Your task to perform on an android device: check the backup settings in the google photos Image 0: 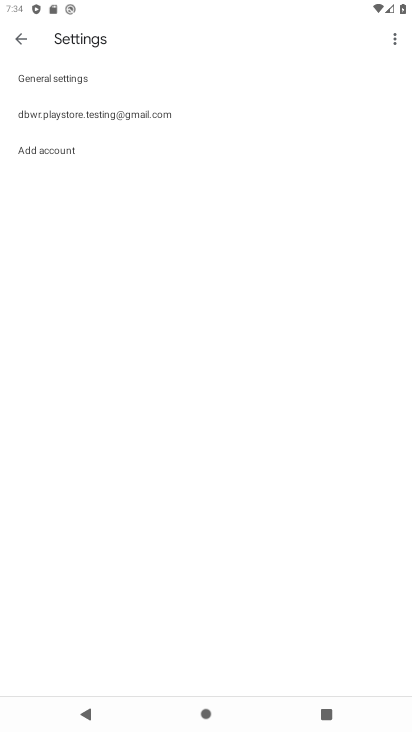
Step 0: press home button
Your task to perform on an android device: check the backup settings in the google photos Image 1: 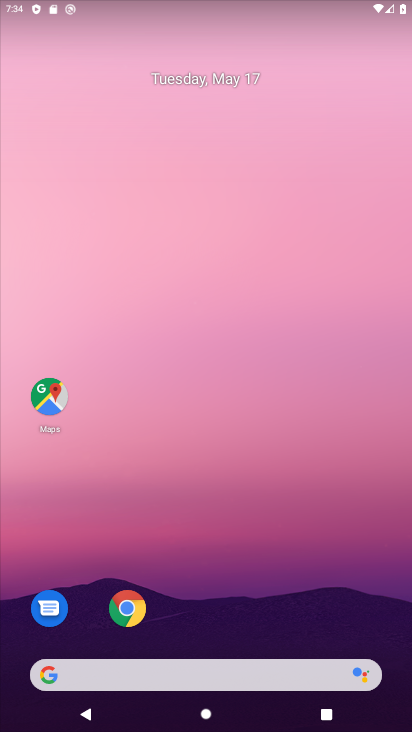
Step 1: drag from (203, 604) to (337, 96)
Your task to perform on an android device: check the backup settings in the google photos Image 2: 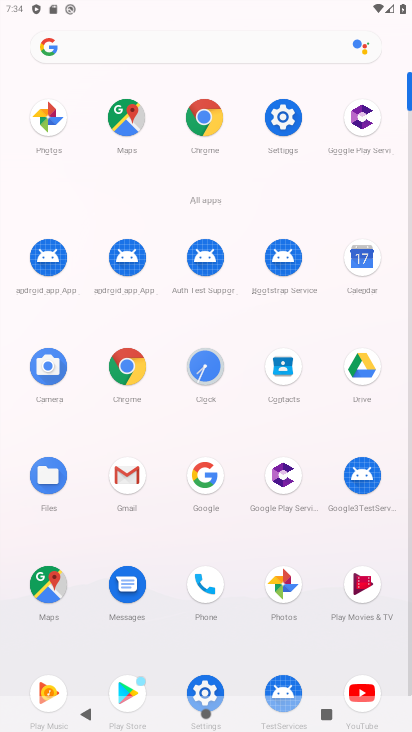
Step 2: click (41, 110)
Your task to perform on an android device: check the backup settings in the google photos Image 3: 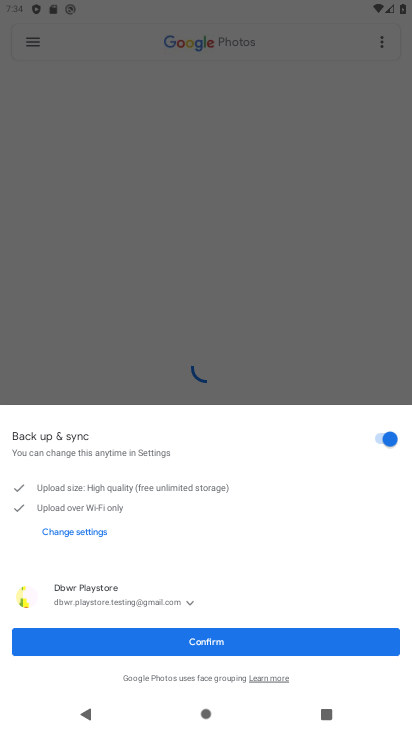
Step 3: click (211, 644)
Your task to perform on an android device: check the backup settings in the google photos Image 4: 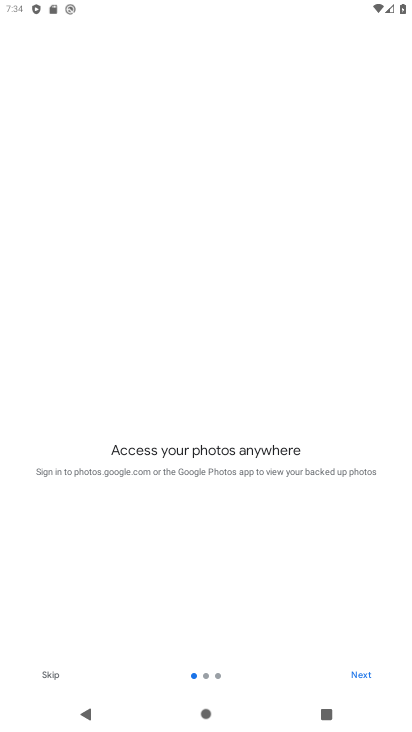
Step 4: click (355, 681)
Your task to perform on an android device: check the backup settings in the google photos Image 5: 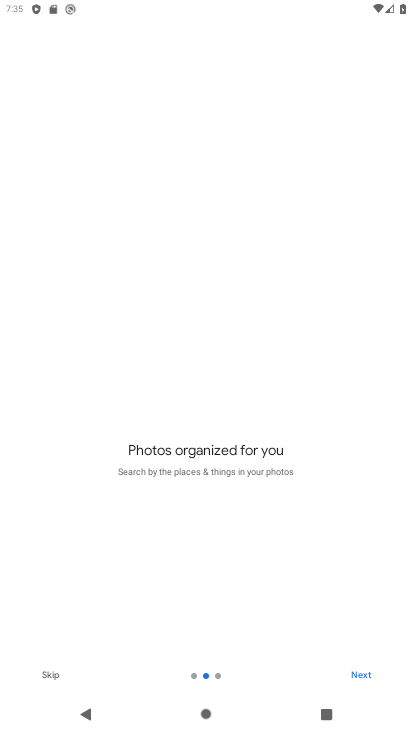
Step 5: click (355, 681)
Your task to perform on an android device: check the backup settings in the google photos Image 6: 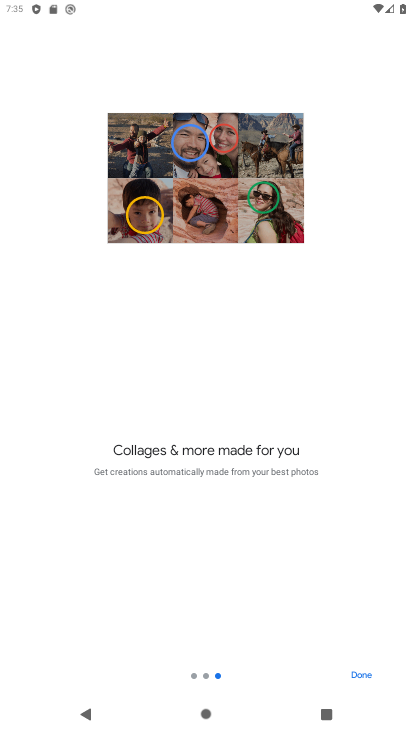
Step 6: click (355, 681)
Your task to perform on an android device: check the backup settings in the google photos Image 7: 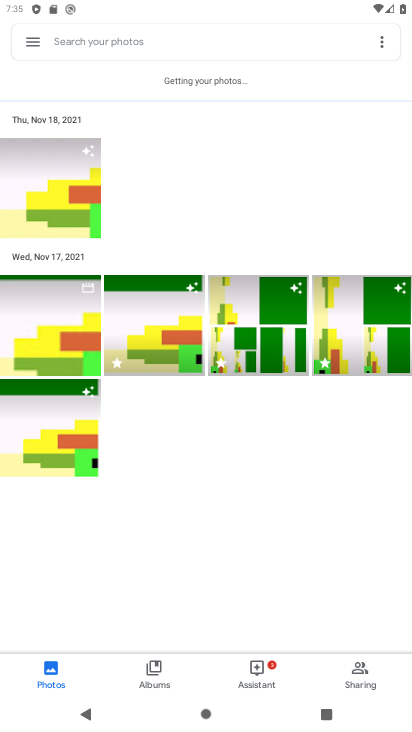
Step 7: click (41, 47)
Your task to perform on an android device: check the backup settings in the google photos Image 8: 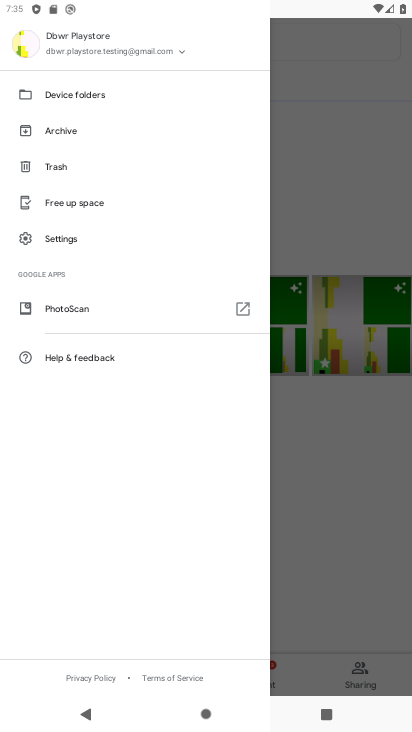
Step 8: click (41, 47)
Your task to perform on an android device: check the backup settings in the google photos Image 9: 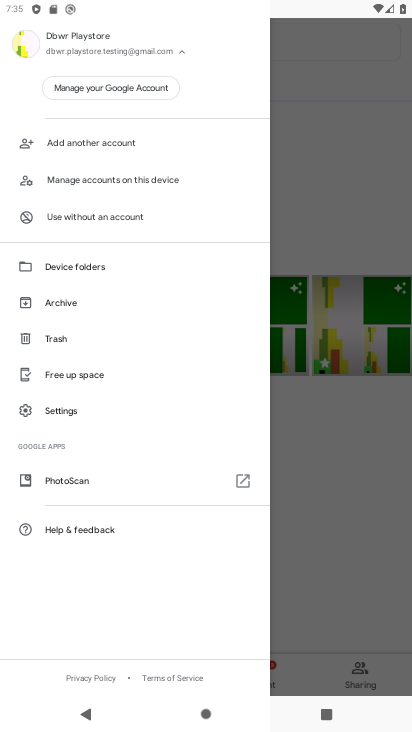
Step 9: click (80, 415)
Your task to perform on an android device: check the backup settings in the google photos Image 10: 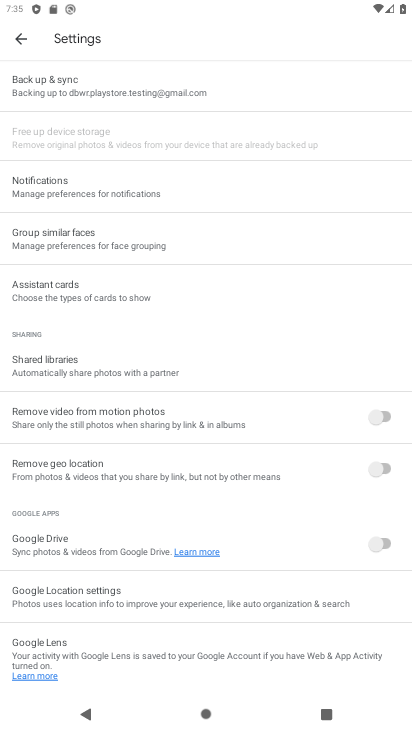
Step 10: click (129, 99)
Your task to perform on an android device: check the backup settings in the google photos Image 11: 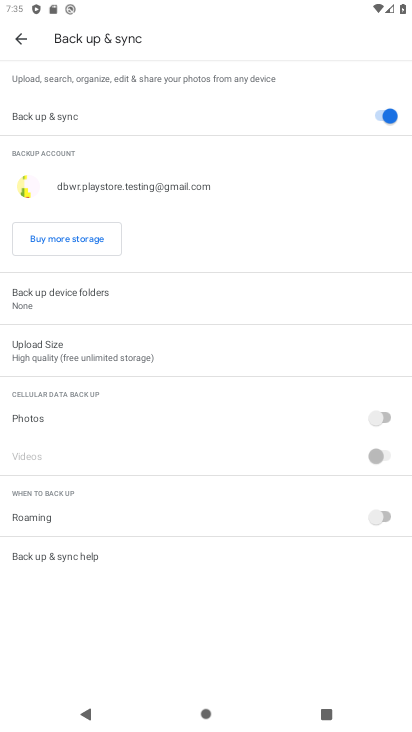
Step 11: click (214, 359)
Your task to perform on an android device: check the backup settings in the google photos Image 12: 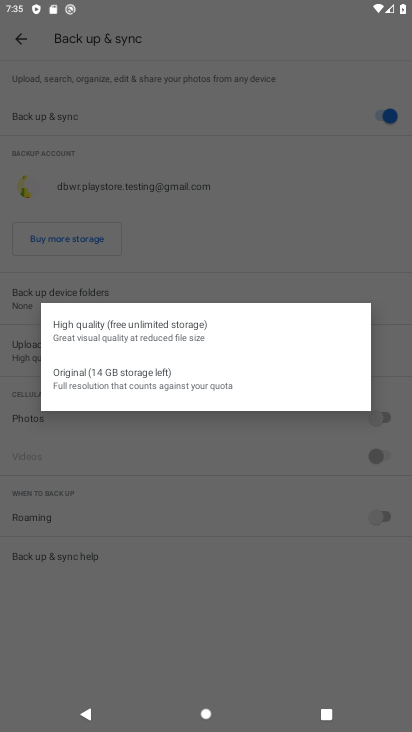
Step 12: click (60, 380)
Your task to perform on an android device: check the backup settings in the google photos Image 13: 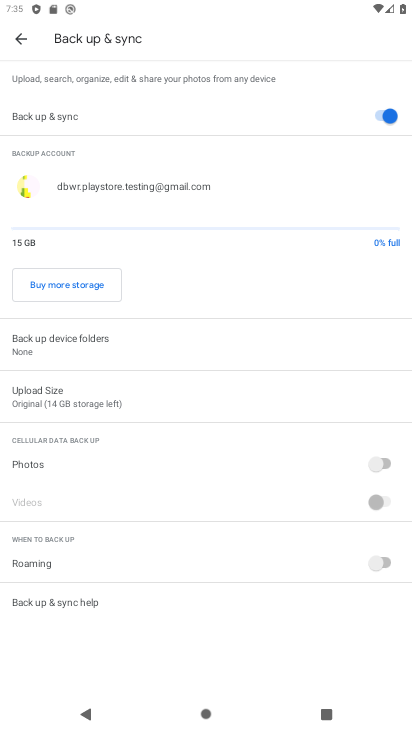
Step 13: task complete